Your task to perform on an android device: change the clock display to show seconds Image 0: 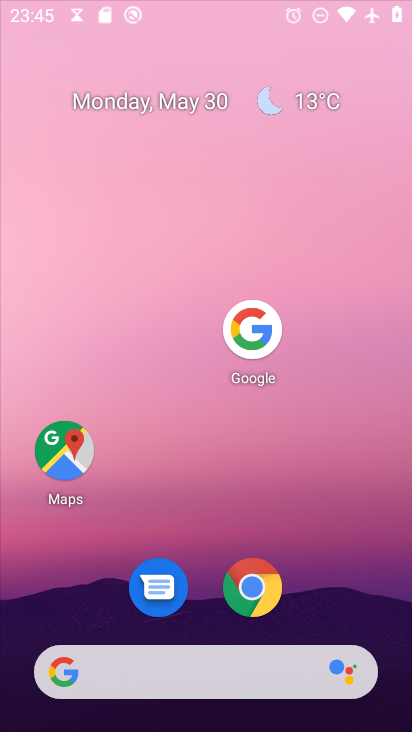
Step 0: press home button
Your task to perform on an android device: change the clock display to show seconds Image 1: 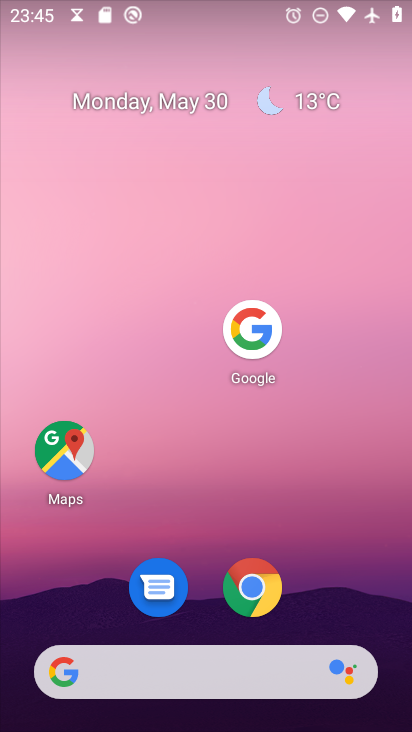
Step 1: drag from (224, 678) to (297, 221)
Your task to perform on an android device: change the clock display to show seconds Image 2: 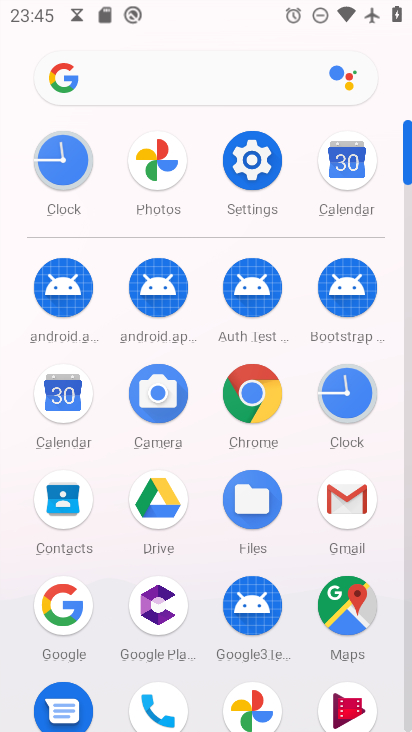
Step 2: click (341, 414)
Your task to perform on an android device: change the clock display to show seconds Image 3: 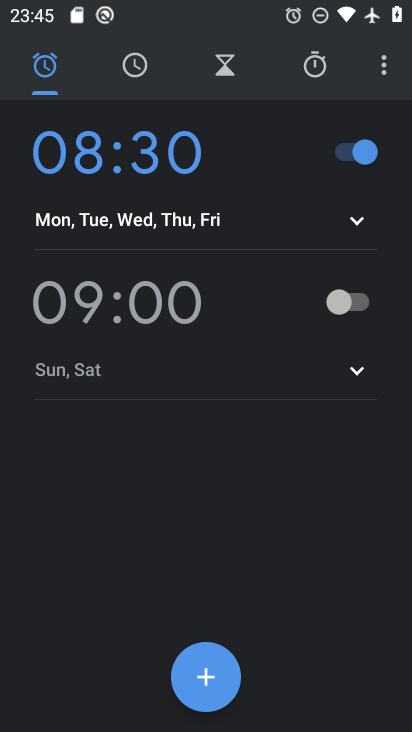
Step 3: click (389, 70)
Your task to perform on an android device: change the clock display to show seconds Image 4: 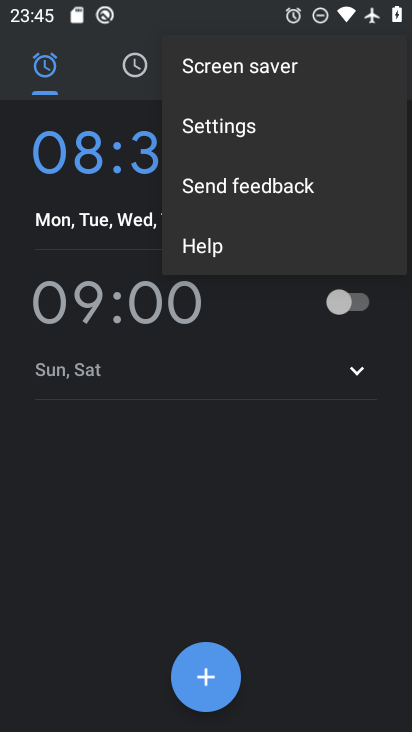
Step 4: click (233, 122)
Your task to perform on an android device: change the clock display to show seconds Image 5: 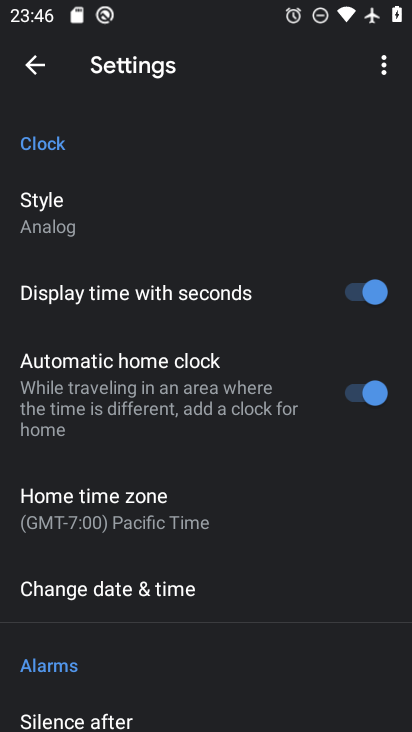
Step 5: task complete